Your task to perform on an android device: stop showing notifications on the lock screen Image 0: 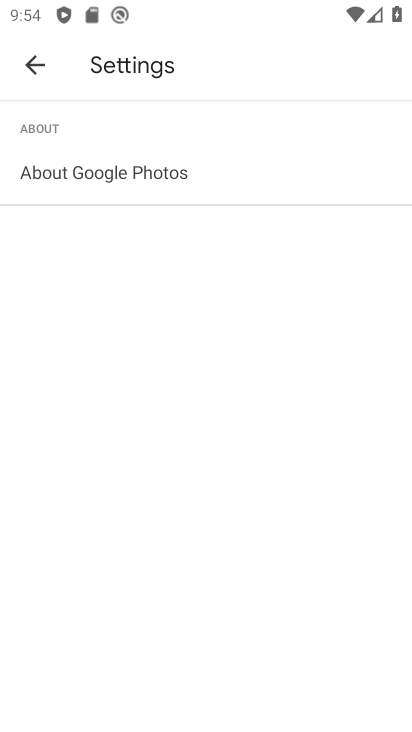
Step 0: press home button
Your task to perform on an android device: stop showing notifications on the lock screen Image 1: 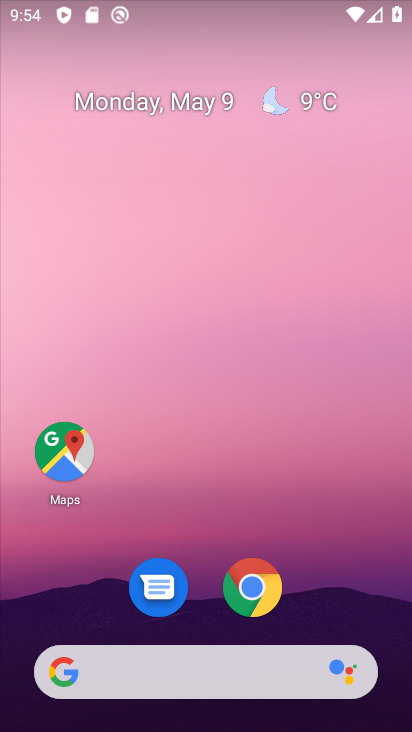
Step 1: drag from (336, 527) to (325, 4)
Your task to perform on an android device: stop showing notifications on the lock screen Image 2: 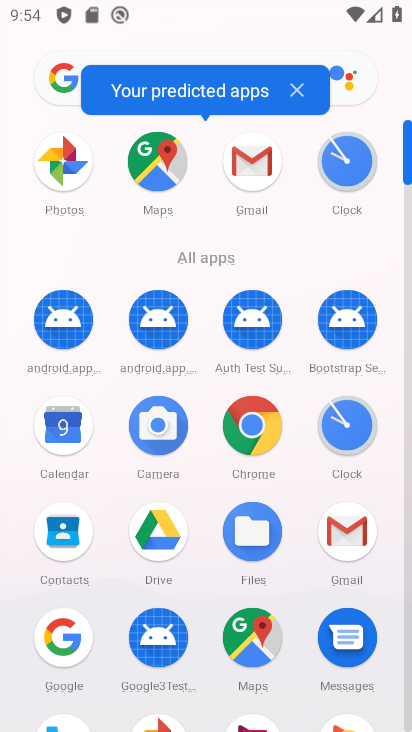
Step 2: drag from (384, 617) to (369, 264)
Your task to perform on an android device: stop showing notifications on the lock screen Image 3: 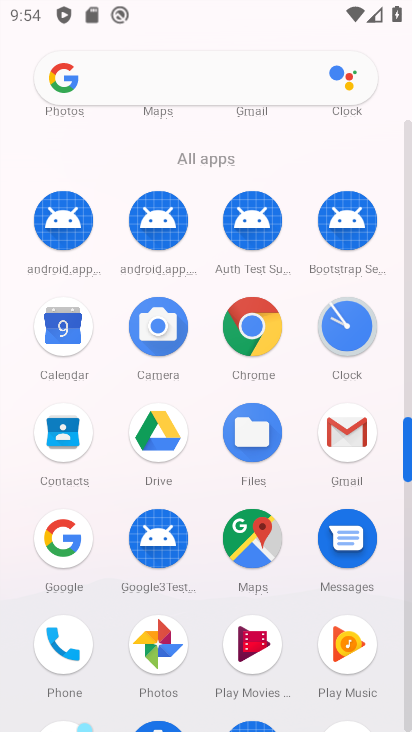
Step 3: drag from (376, 678) to (282, 213)
Your task to perform on an android device: stop showing notifications on the lock screen Image 4: 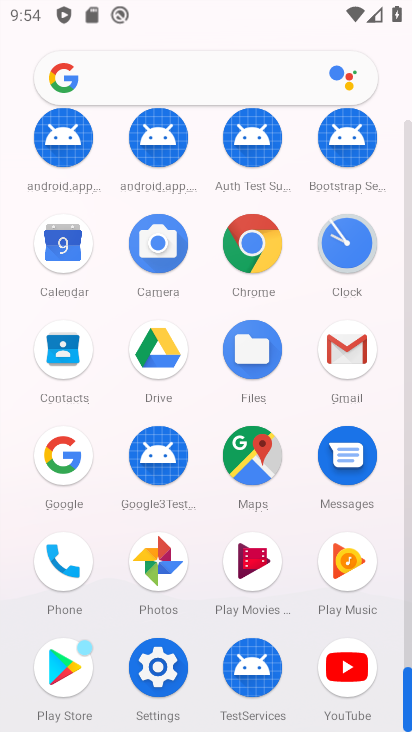
Step 4: click (155, 665)
Your task to perform on an android device: stop showing notifications on the lock screen Image 5: 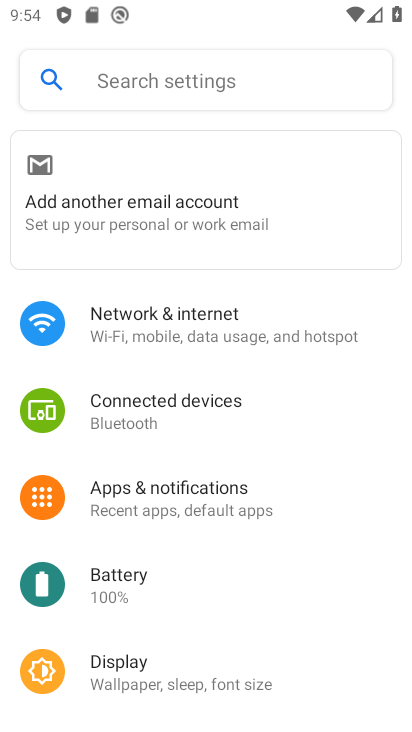
Step 5: click (222, 497)
Your task to perform on an android device: stop showing notifications on the lock screen Image 6: 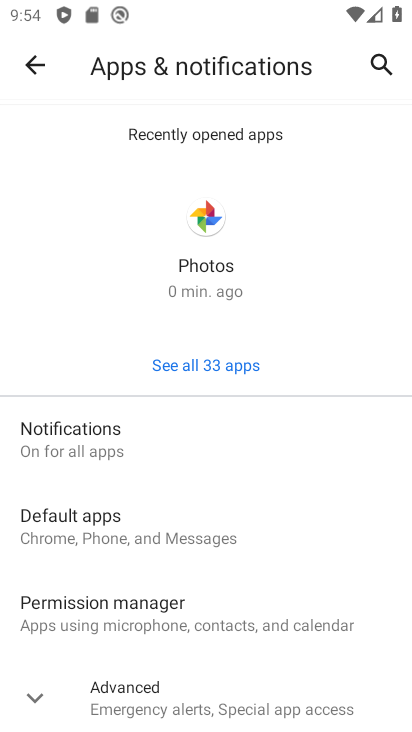
Step 6: click (57, 427)
Your task to perform on an android device: stop showing notifications on the lock screen Image 7: 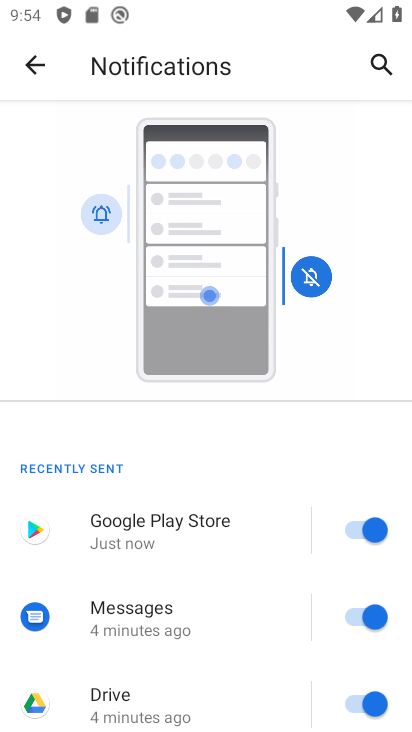
Step 7: drag from (169, 612) to (227, 100)
Your task to perform on an android device: stop showing notifications on the lock screen Image 8: 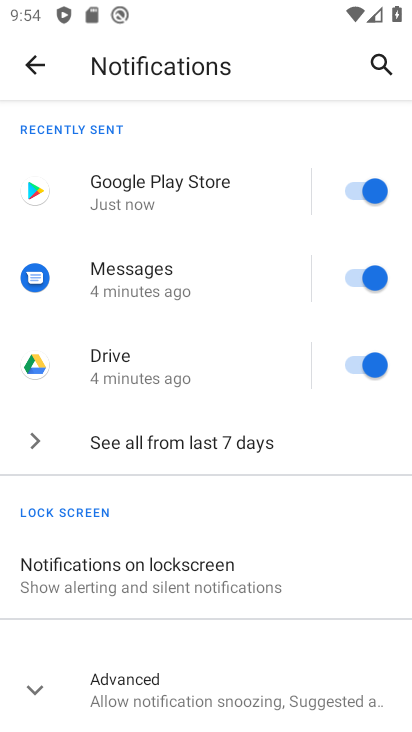
Step 8: click (204, 569)
Your task to perform on an android device: stop showing notifications on the lock screen Image 9: 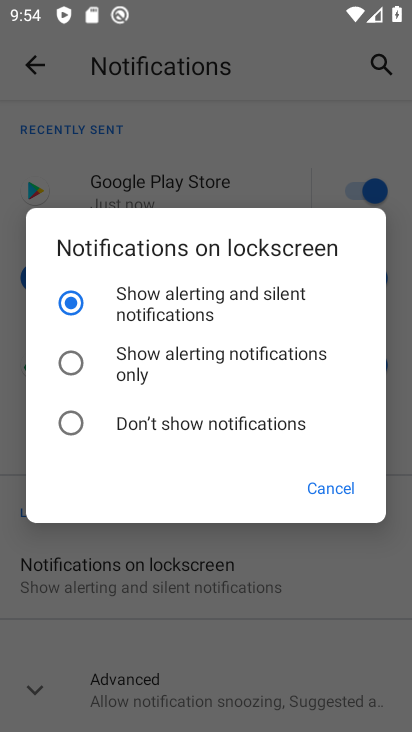
Step 9: click (80, 425)
Your task to perform on an android device: stop showing notifications on the lock screen Image 10: 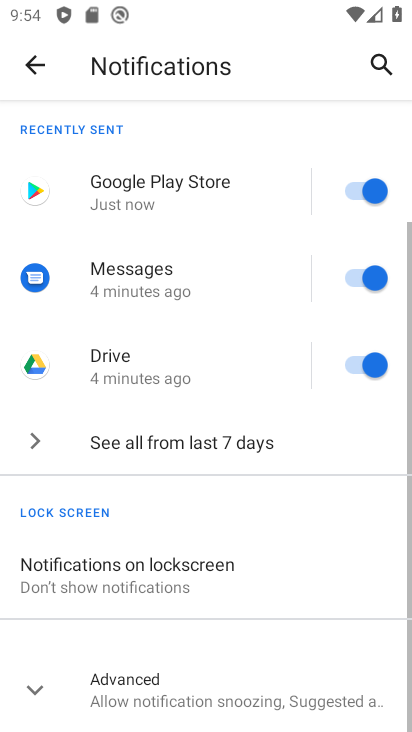
Step 10: task complete